Your task to perform on an android device: Go to sound settings Image 0: 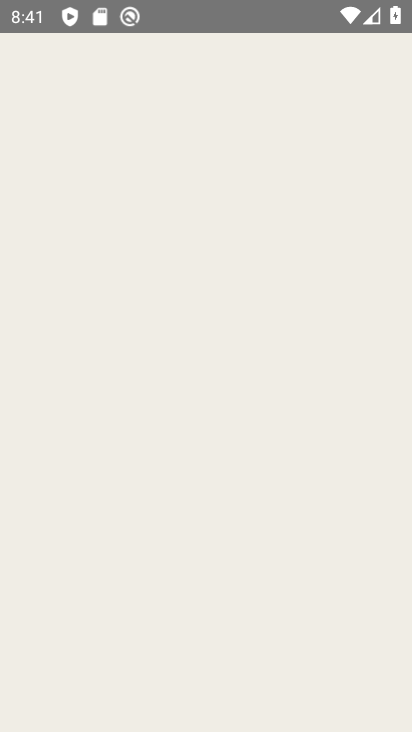
Step 0: drag from (298, 179) to (278, 75)
Your task to perform on an android device: Go to sound settings Image 1: 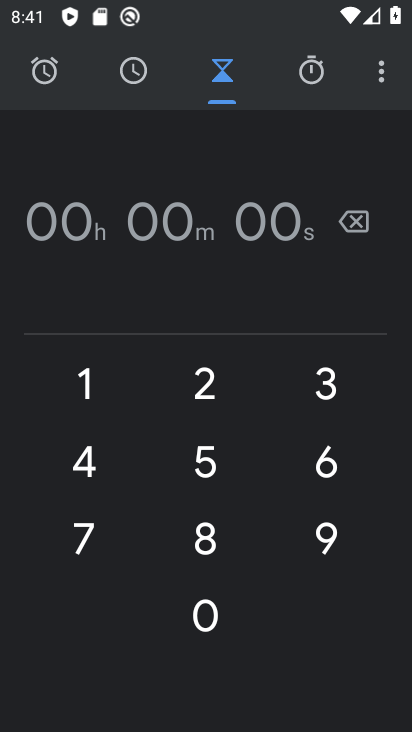
Step 1: press home button
Your task to perform on an android device: Go to sound settings Image 2: 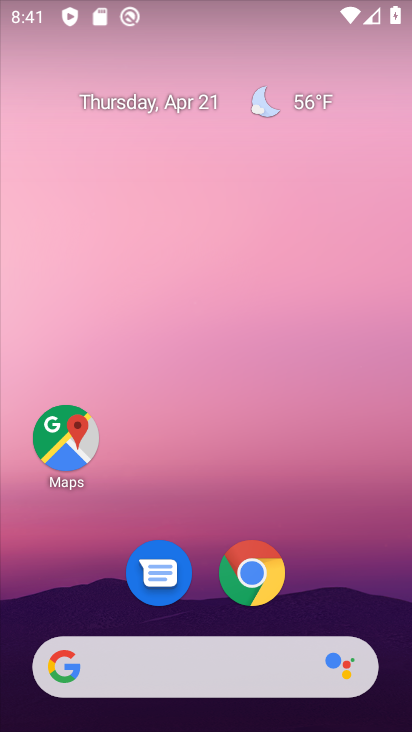
Step 2: drag from (361, 590) to (221, 2)
Your task to perform on an android device: Go to sound settings Image 3: 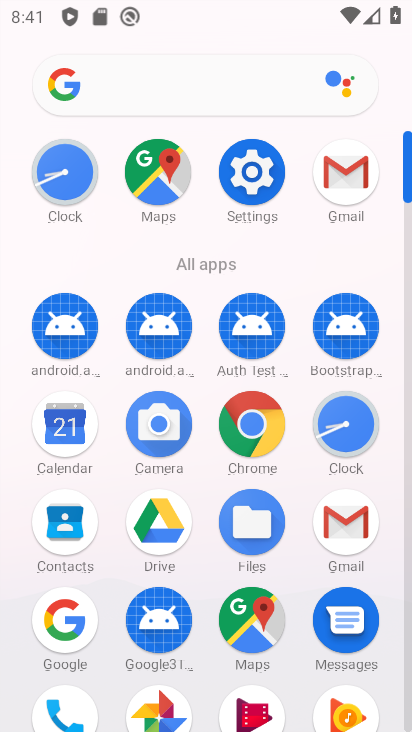
Step 3: drag from (294, 613) to (256, 262)
Your task to perform on an android device: Go to sound settings Image 4: 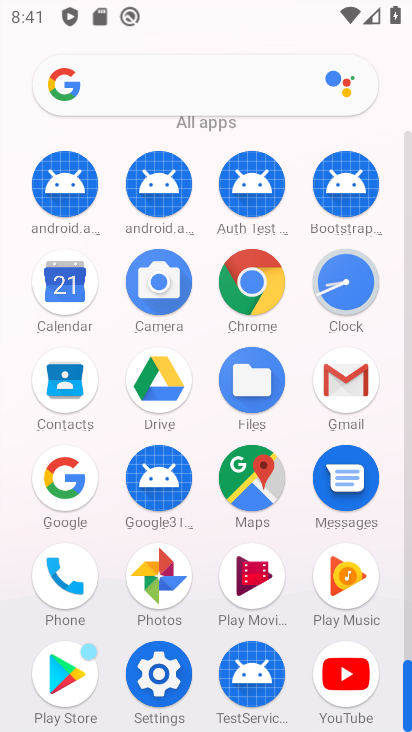
Step 4: click (166, 667)
Your task to perform on an android device: Go to sound settings Image 5: 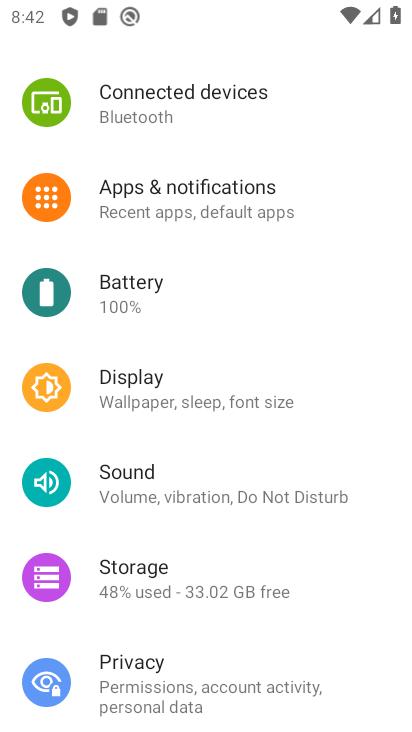
Step 5: click (201, 496)
Your task to perform on an android device: Go to sound settings Image 6: 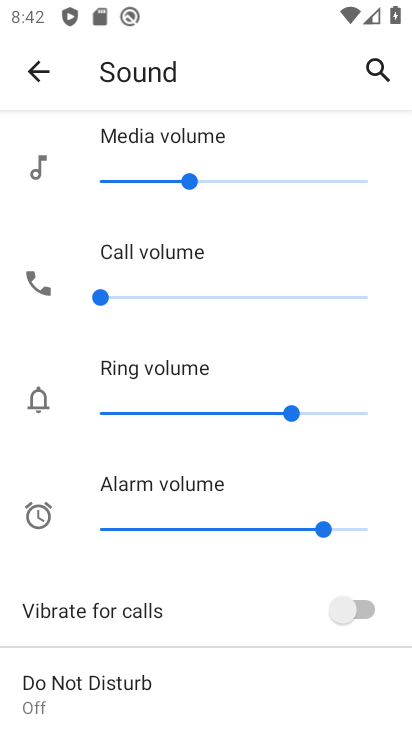
Step 6: task complete